Your task to perform on an android device: Go to display settings Image 0: 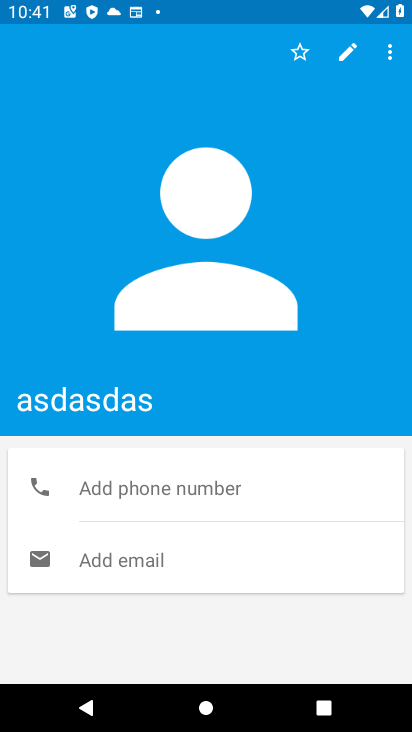
Step 0: press home button
Your task to perform on an android device: Go to display settings Image 1: 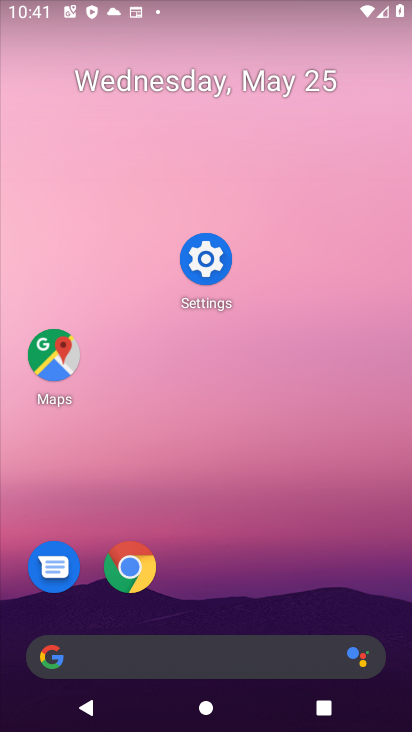
Step 1: click (219, 299)
Your task to perform on an android device: Go to display settings Image 2: 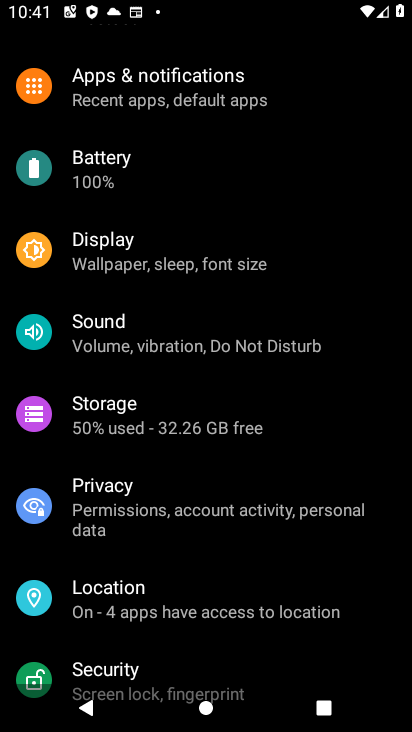
Step 2: click (217, 277)
Your task to perform on an android device: Go to display settings Image 3: 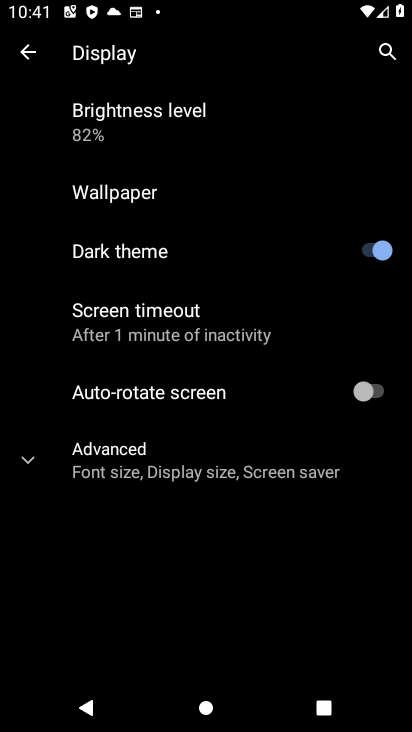
Step 3: task complete